Your task to perform on an android device: Is it going to rain tomorrow? Image 0: 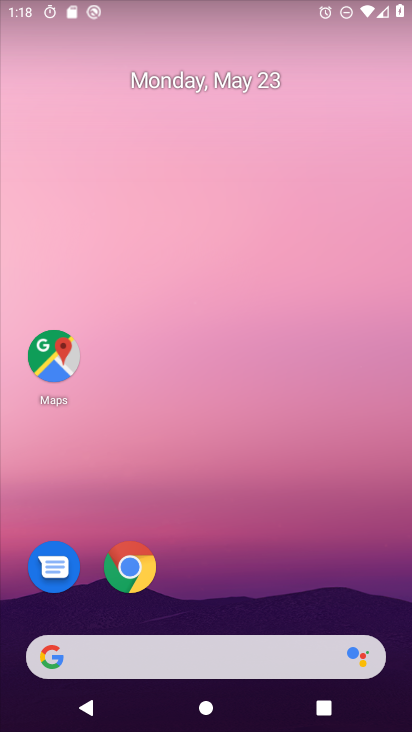
Step 0: click (186, 647)
Your task to perform on an android device: Is it going to rain tomorrow? Image 1: 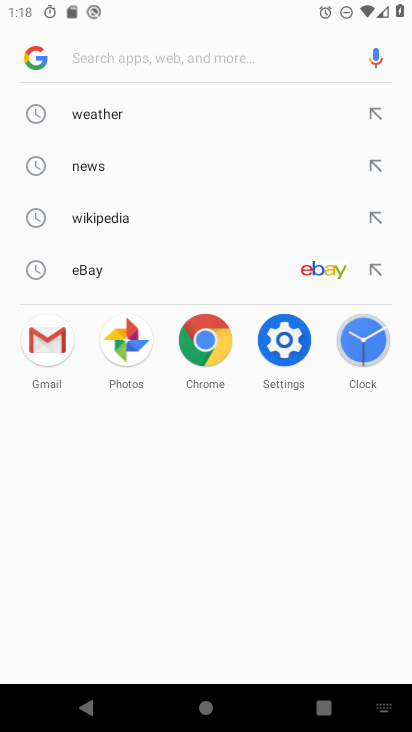
Step 1: click (125, 118)
Your task to perform on an android device: Is it going to rain tomorrow? Image 2: 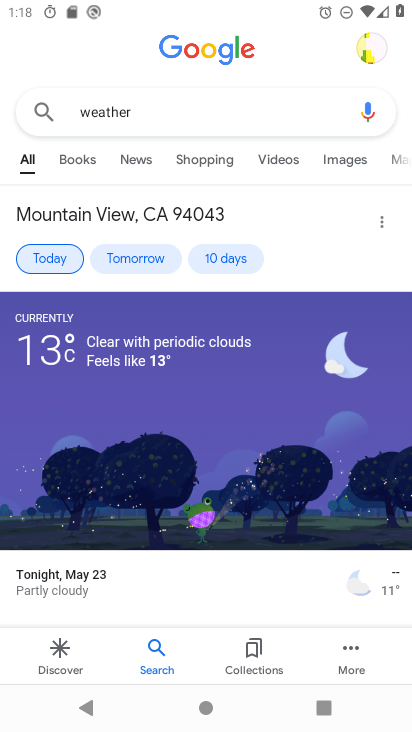
Step 2: click (129, 259)
Your task to perform on an android device: Is it going to rain tomorrow? Image 3: 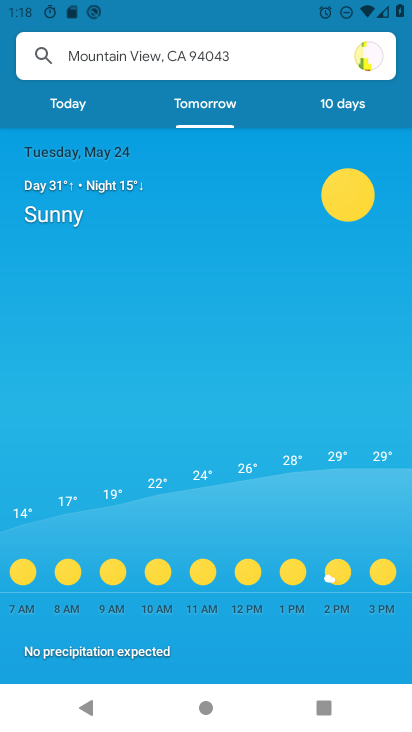
Step 3: task complete